Your task to perform on an android device: Go to Maps Image 0: 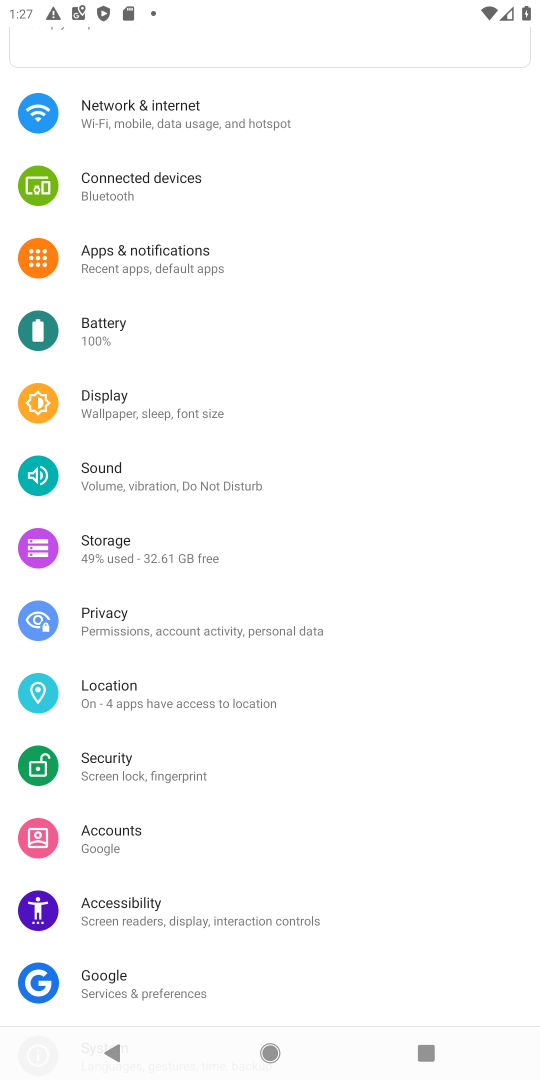
Step 0: press home button
Your task to perform on an android device: Go to Maps Image 1: 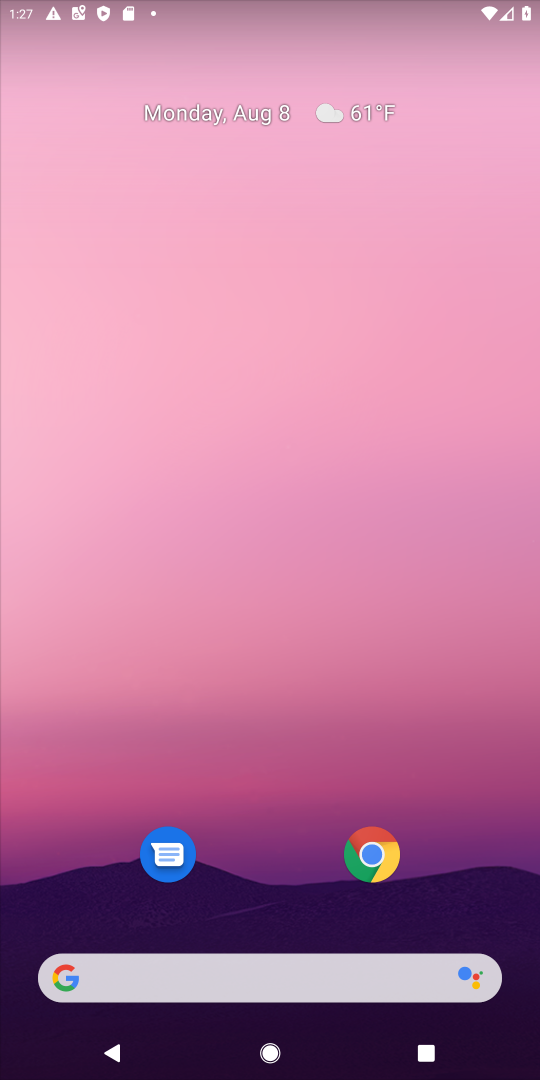
Step 1: drag from (48, 1037) to (365, 39)
Your task to perform on an android device: Go to Maps Image 2: 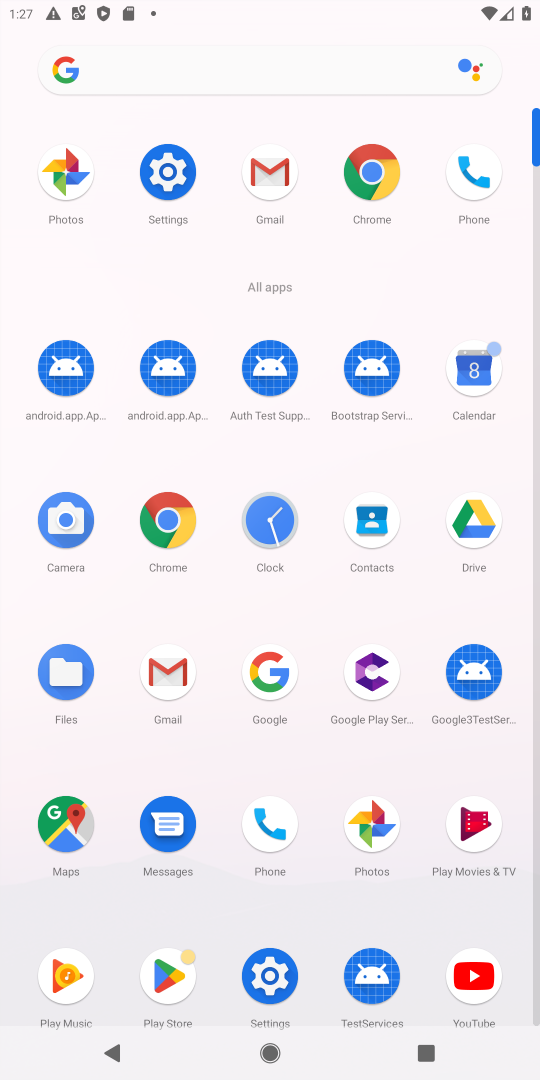
Step 2: click (76, 832)
Your task to perform on an android device: Go to Maps Image 3: 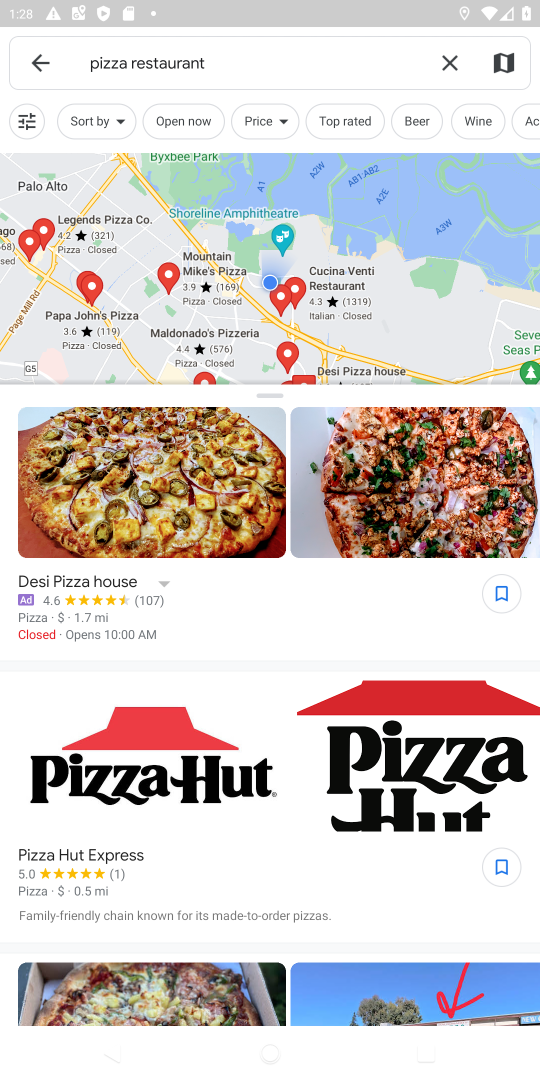
Step 3: click (29, 65)
Your task to perform on an android device: Go to Maps Image 4: 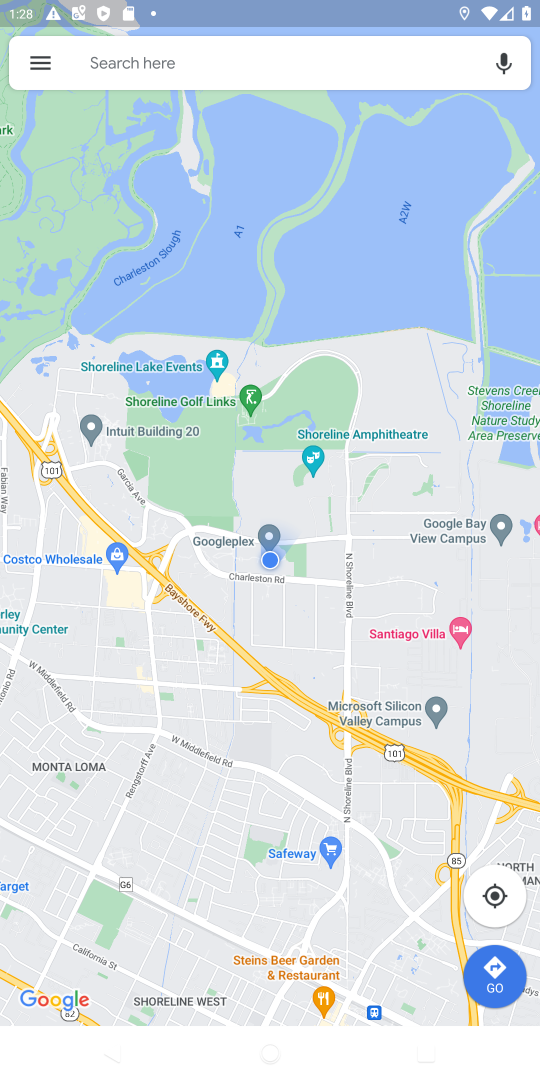
Step 4: task complete